Your task to perform on an android device: find snoozed emails in the gmail app Image 0: 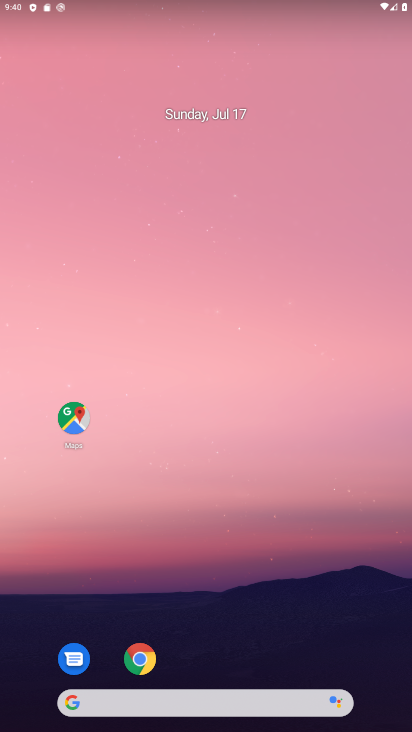
Step 0: drag from (314, 636) to (258, 81)
Your task to perform on an android device: find snoozed emails in the gmail app Image 1: 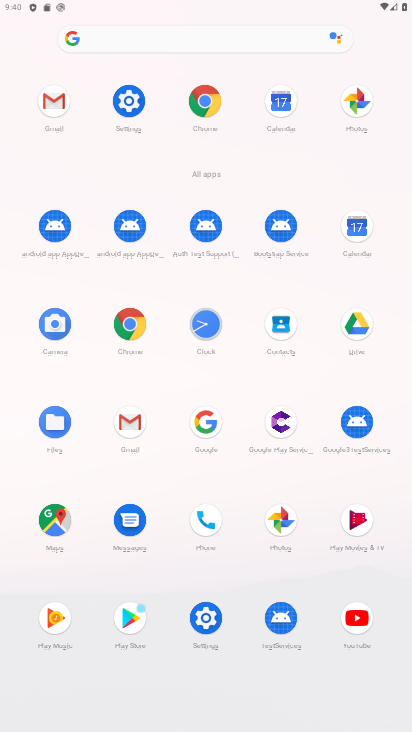
Step 1: click (134, 429)
Your task to perform on an android device: find snoozed emails in the gmail app Image 2: 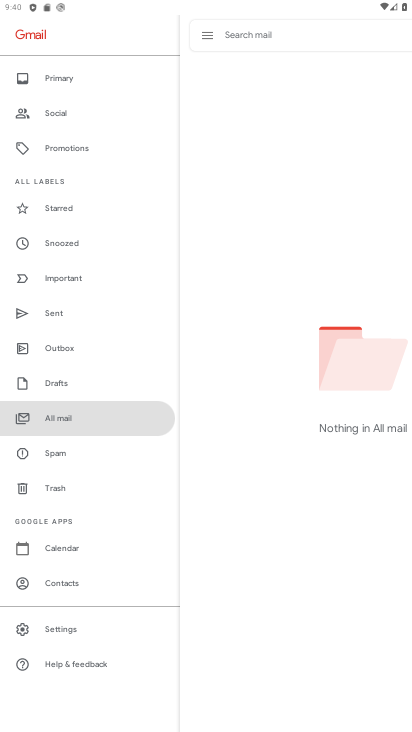
Step 2: click (77, 239)
Your task to perform on an android device: find snoozed emails in the gmail app Image 3: 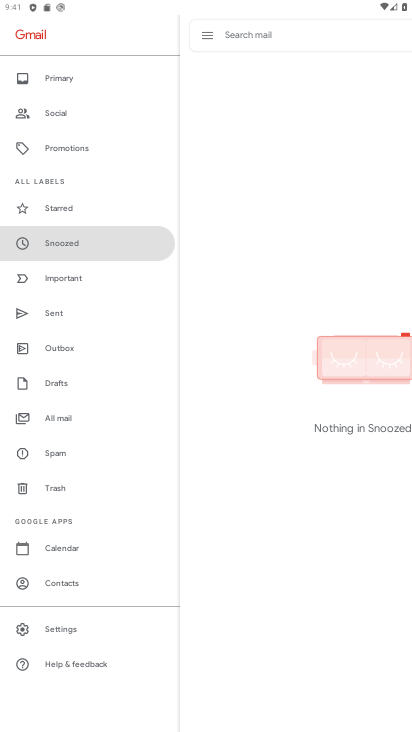
Step 3: task complete